Your task to perform on an android device: open the mobile data screen to see how much data has been used Image 0: 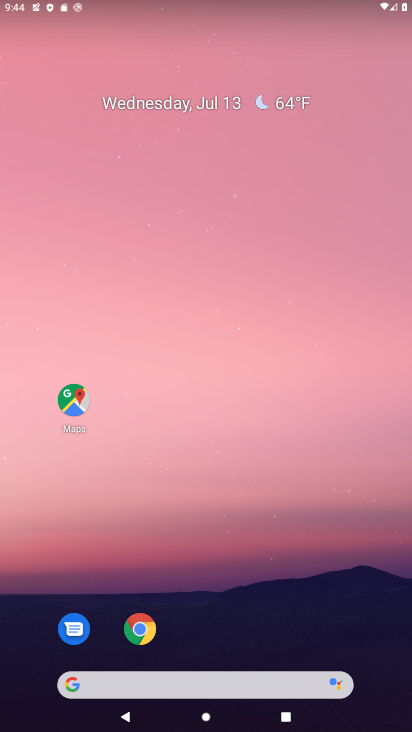
Step 0: drag from (200, 622) to (204, 175)
Your task to perform on an android device: open the mobile data screen to see how much data has been used Image 1: 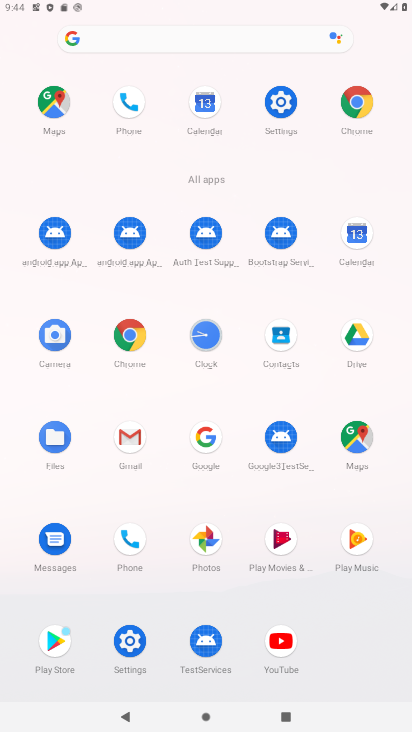
Step 1: click (276, 97)
Your task to perform on an android device: open the mobile data screen to see how much data has been used Image 2: 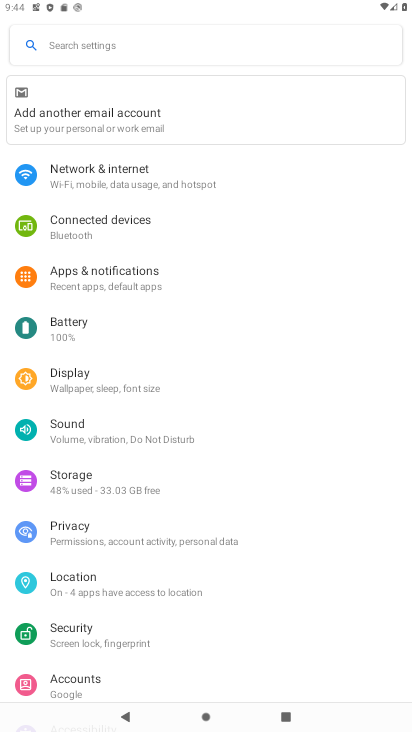
Step 2: click (135, 165)
Your task to perform on an android device: open the mobile data screen to see how much data has been used Image 3: 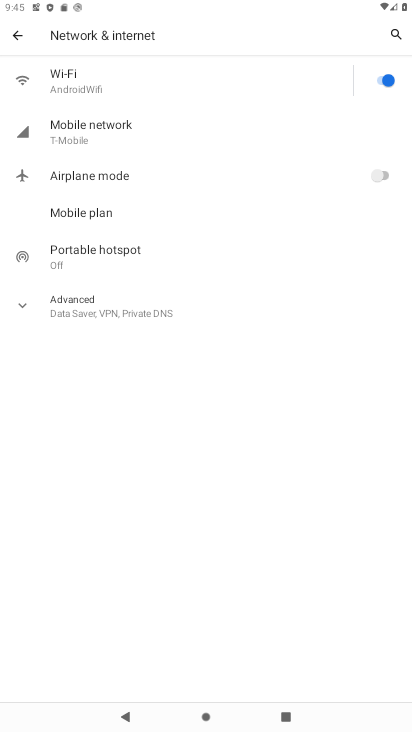
Step 3: click (106, 134)
Your task to perform on an android device: open the mobile data screen to see how much data has been used Image 4: 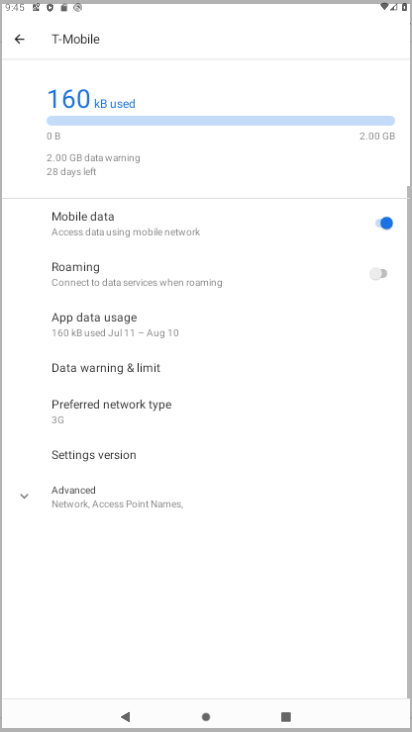
Step 4: click (106, 134)
Your task to perform on an android device: open the mobile data screen to see how much data has been used Image 5: 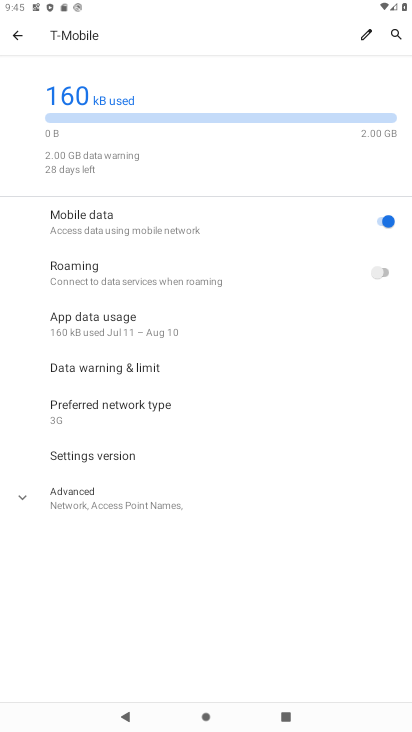
Step 5: click (130, 125)
Your task to perform on an android device: open the mobile data screen to see how much data has been used Image 6: 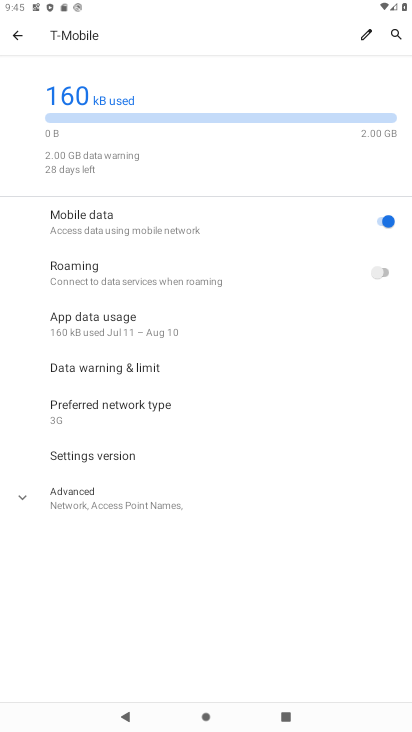
Step 6: click (100, 123)
Your task to perform on an android device: open the mobile data screen to see how much data has been used Image 7: 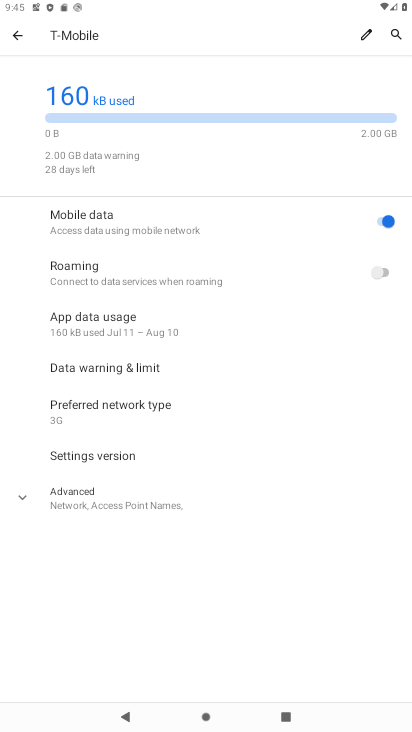
Step 7: task complete